Your task to perform on an android device: Do I have any events this weekend? Image 0: 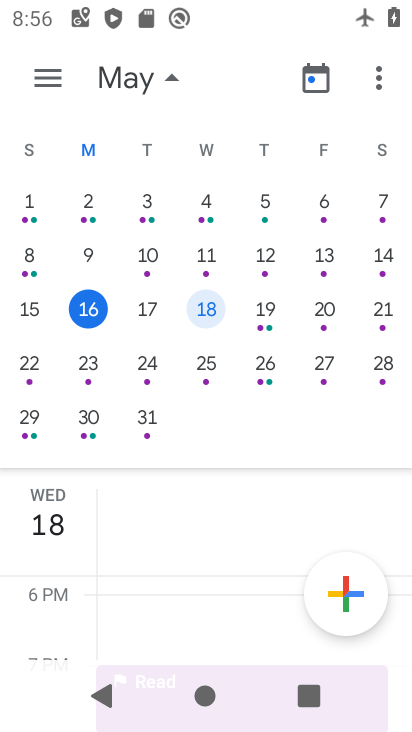
Step 0: press home button
Your task to perform on an android device: Do I have any events this weekend? Image 1: 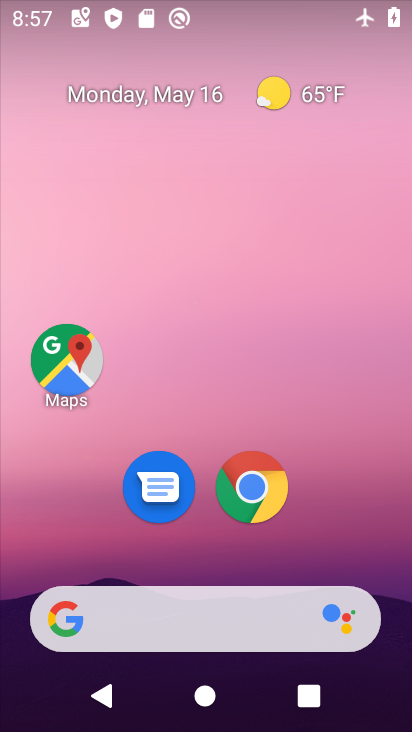
Step 1: drag from (358, 502) to (340, 164)
Your task to perform on an android device: Do I have any events this weekend? Image 2: 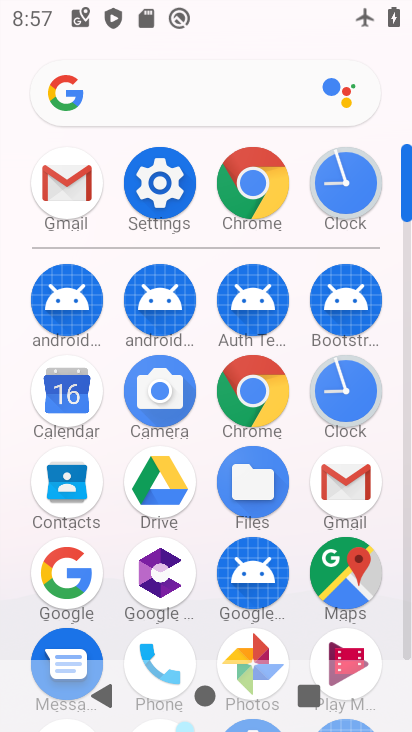
Step 2: click (67, 406)
Your task to perform on an android device: Do I have any events this weekend? Image 3: 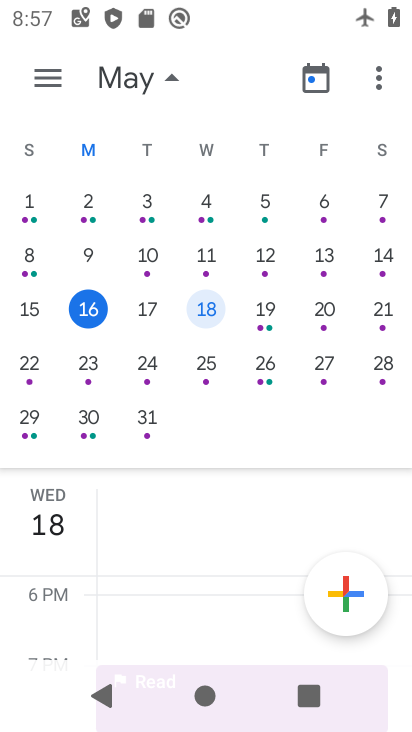
Step 3: click (383, 316)
Your task to perform on an android device: Do I have any events this weekend? Image 4: 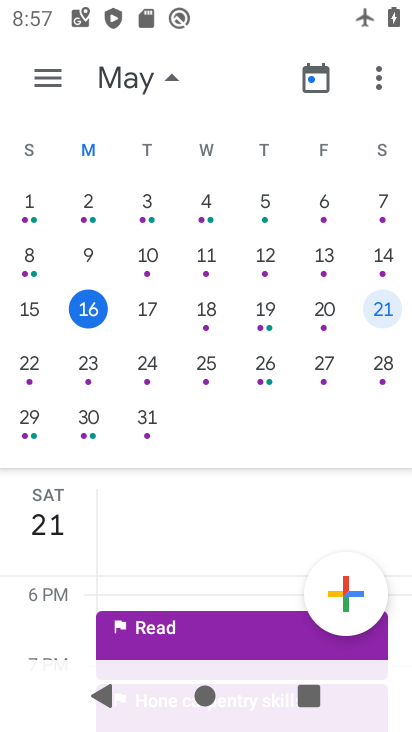
Step 4: drag from (279, 514) to (275, 191)
Your task to perform on an android device: Do I have any events this weekend? Image 5: 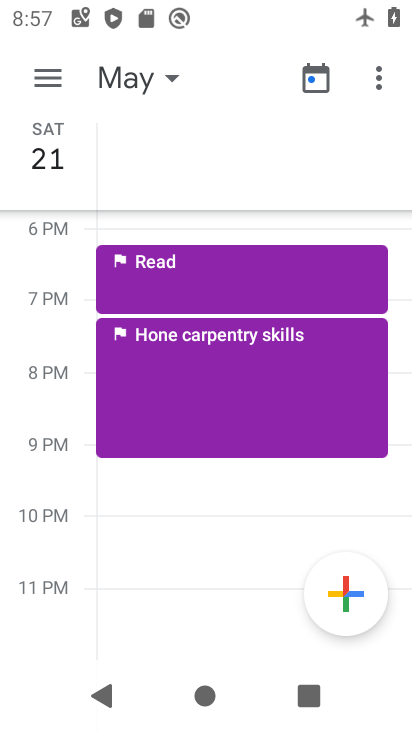
Step 5: click (198, 379)
Your task to perform on an android device: Do I have any events this weekend? Image 6: 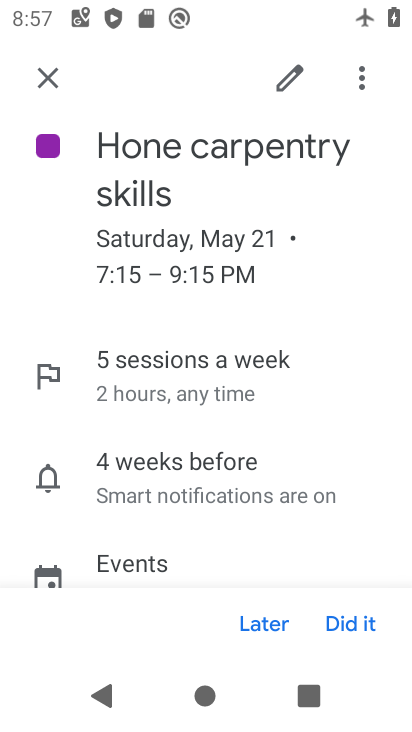
Step 6: task complete